Your task to perform on an android device: create a new album in the google photos Image 0: 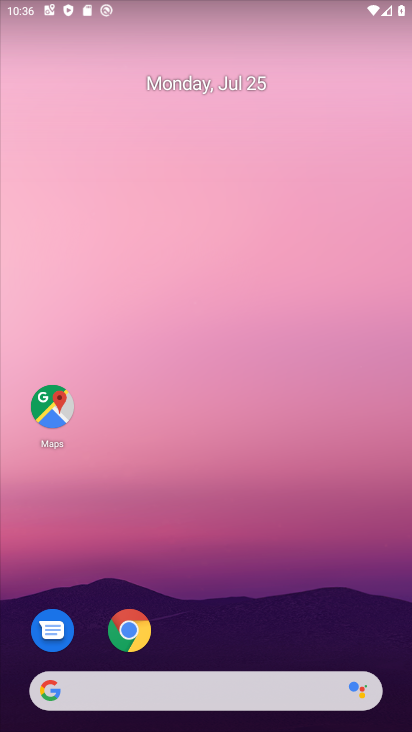
Step 0: press home button
Your task to perform on an android device: create a new album in the google photos Image 1: 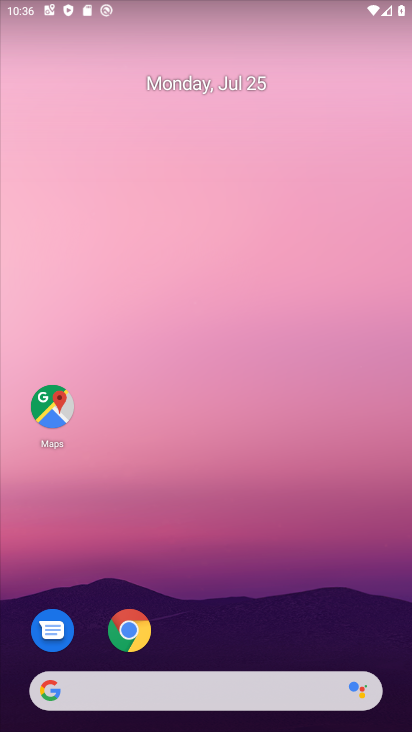
Step 1: drag from (342, 637) to (349, 148)
Your task to perform on an android device: create a new album in the google photos Image 2: 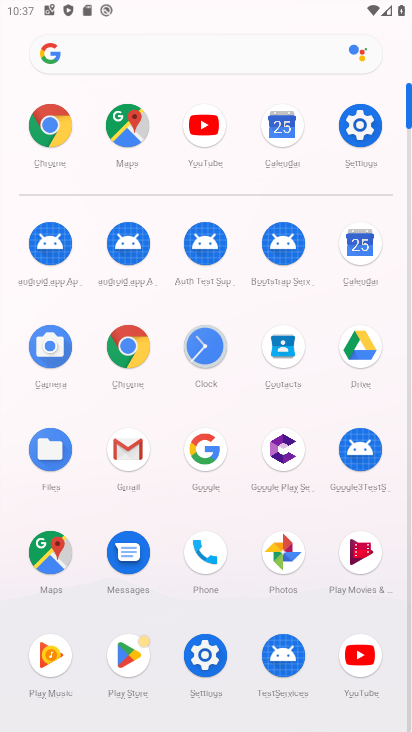
Step 2: click (294, 548)
Your task to perform on an android device: create a new album in the google photos Image 3: 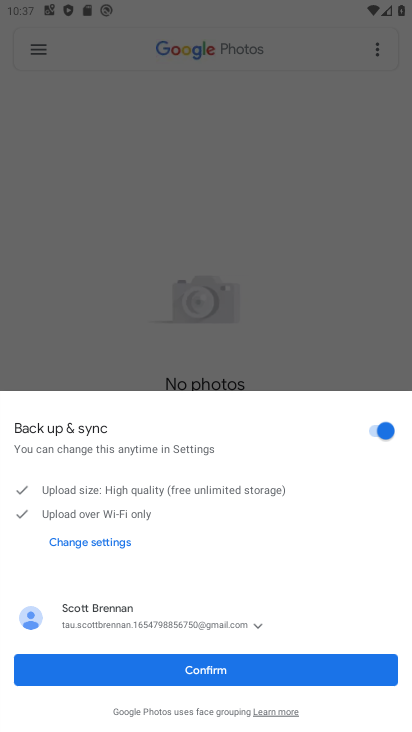
Step 3: click (284, 670)
Your task to perform on an android device: create a new album in the google photos Image 4: 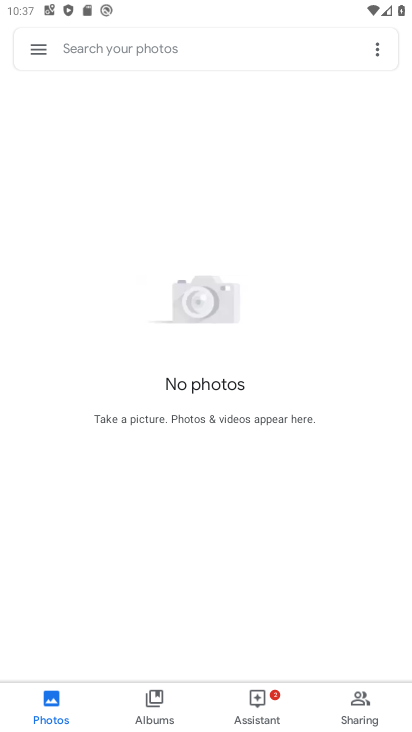
Step 4: click (375, 52)
Your task to perform on an android device: create a new album in the google photos Image 5: 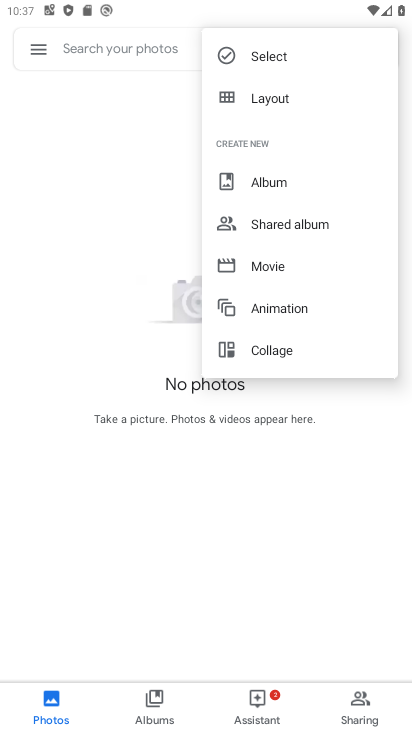
Step 5: click (285, 183)
Your task to perform on an android device: create a new album in the google photos Image 6: 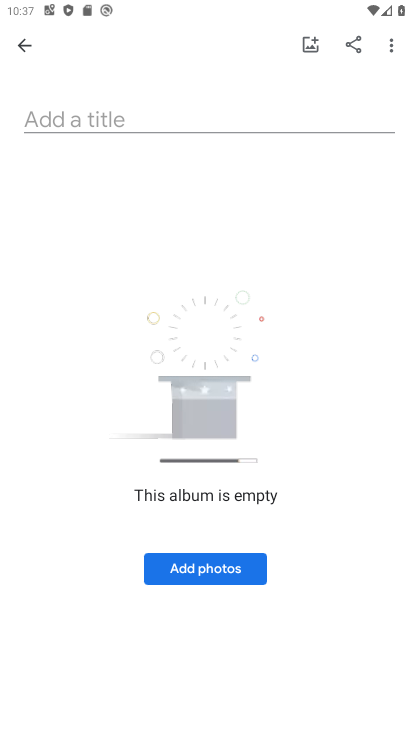
Step 6: click (268, 110)
Your task to perform on an android device: create a new album in the google photos Image 7: 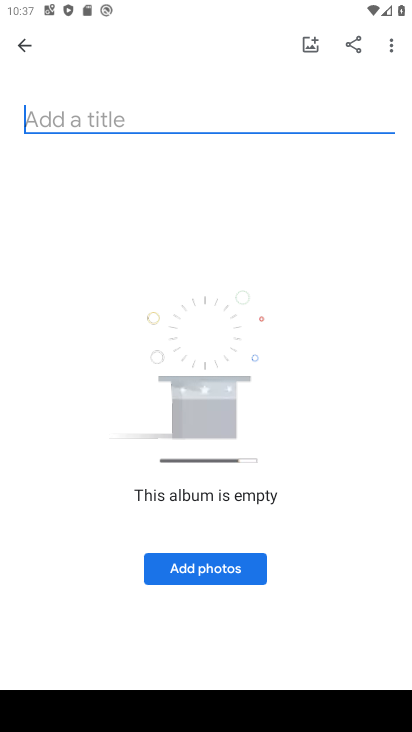
Step 7: type "fav"
Your task to perform on an android device: create a new album in the google photos Image 8: 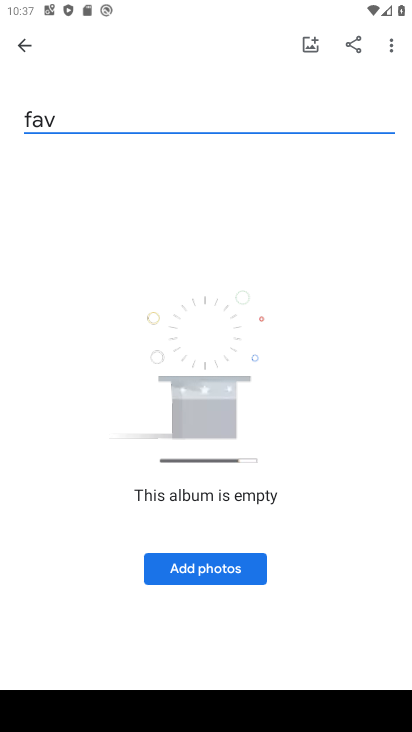
Step 8: click (217, 569)
Your task to perform on an android device: create a new album in the google photos Image 9: 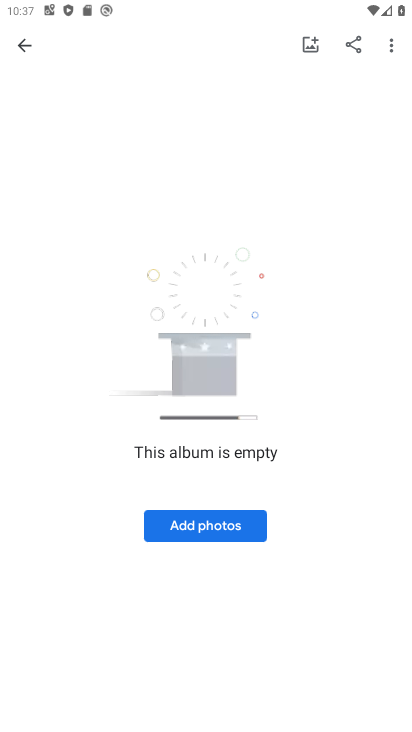
Step 9: click (216, 535)
Your task to perform on an android device: create a new album in the google photos Image 10: 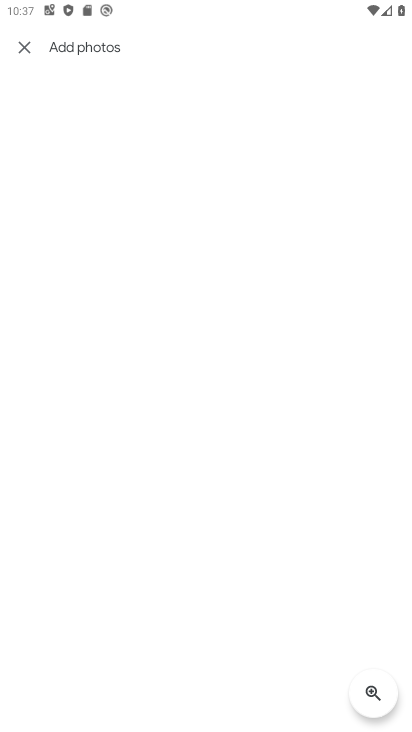
Step 10: task complete